Your task to perform on an android device: open app "Flipkart Online Shopping App" Image 0: 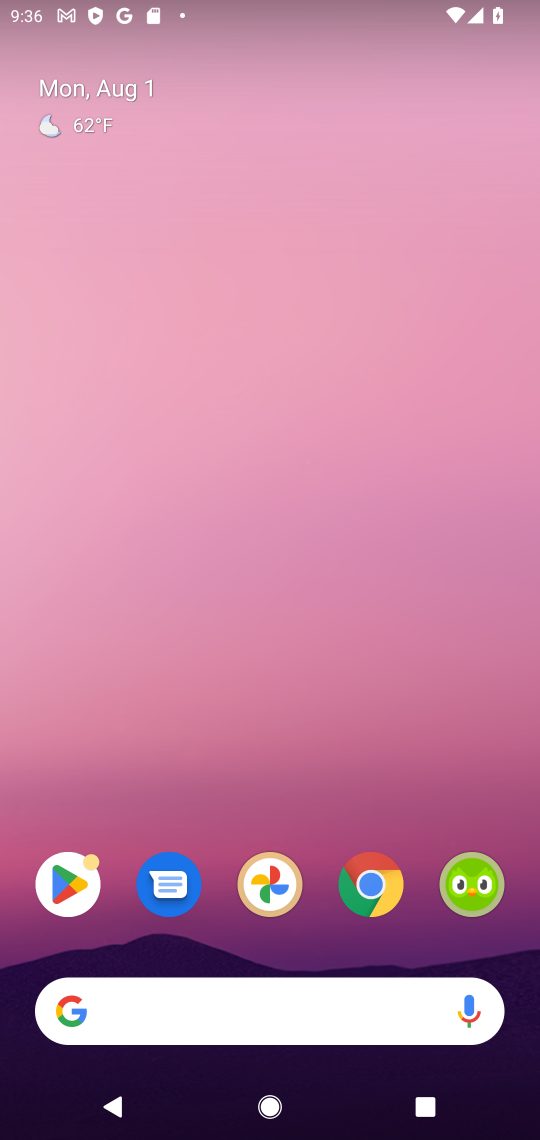
Step 0: click (292, 1000)
Your task to perform on an android device: open app "Flipkart Online Shopping App" Image 1: 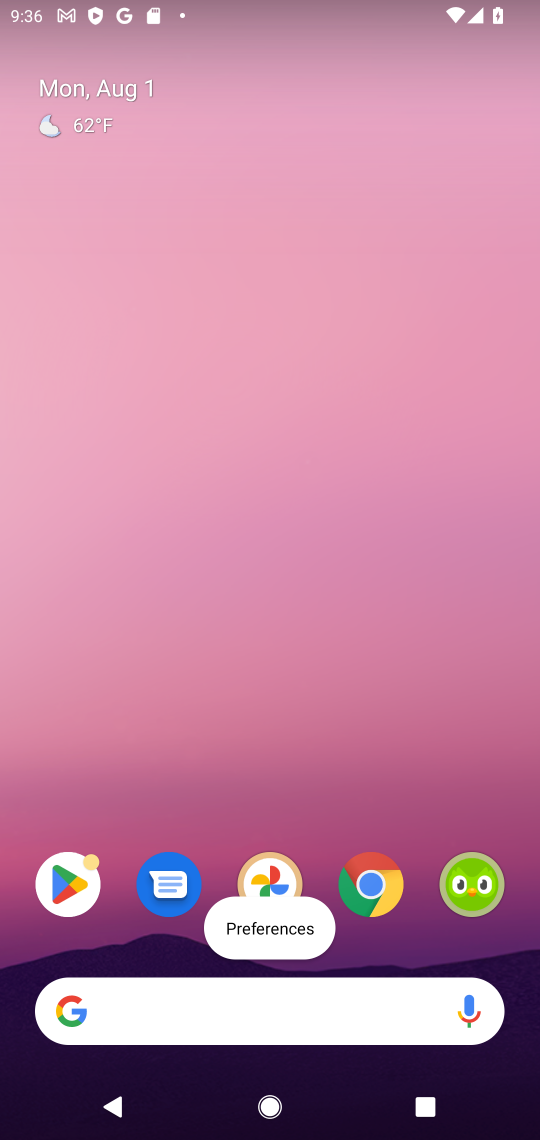
Step 1: click (82, 865)
Your task to perform on an android device: open app "Flipkart Online Shopping App" Image 2: 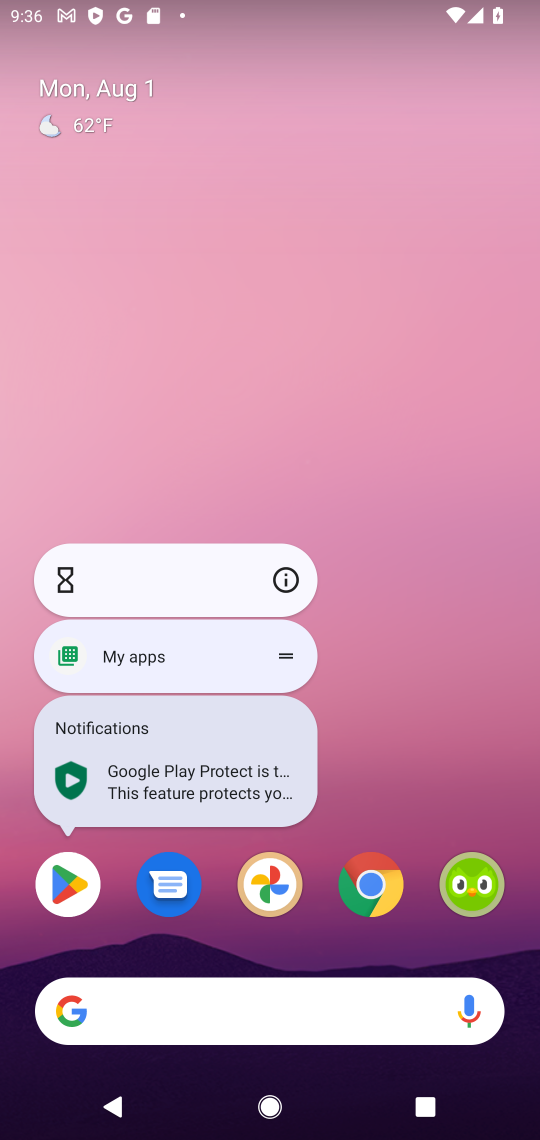
Step 2: click (82, 907)
Your task to perform on an android device: open app "Flipkart Online Shopping App" Image 3: 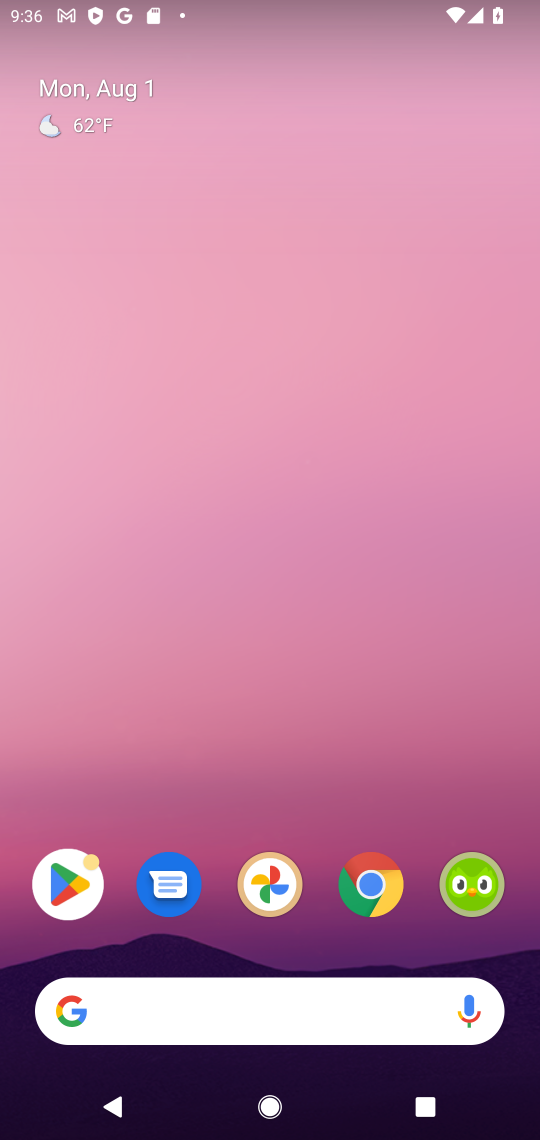
Step 3: click (57, 907)
Your task to perform on an android device: open app "Flipkart Online Shopping App" Image 4: 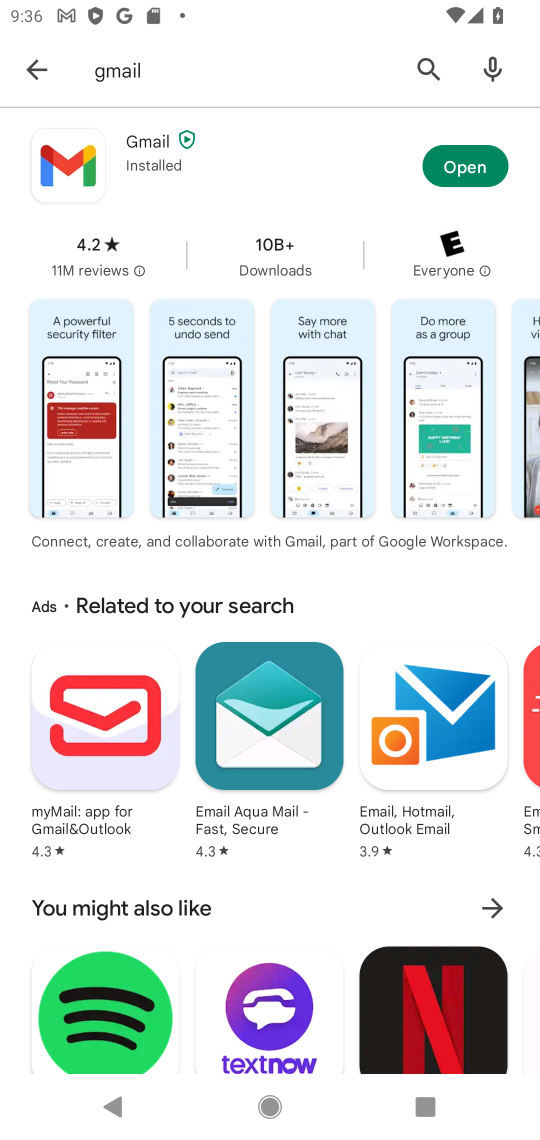
Step 4: click (429, 58)
Your task to perform on an android device: open app "Flipkart Online Shopping App" Image 5: 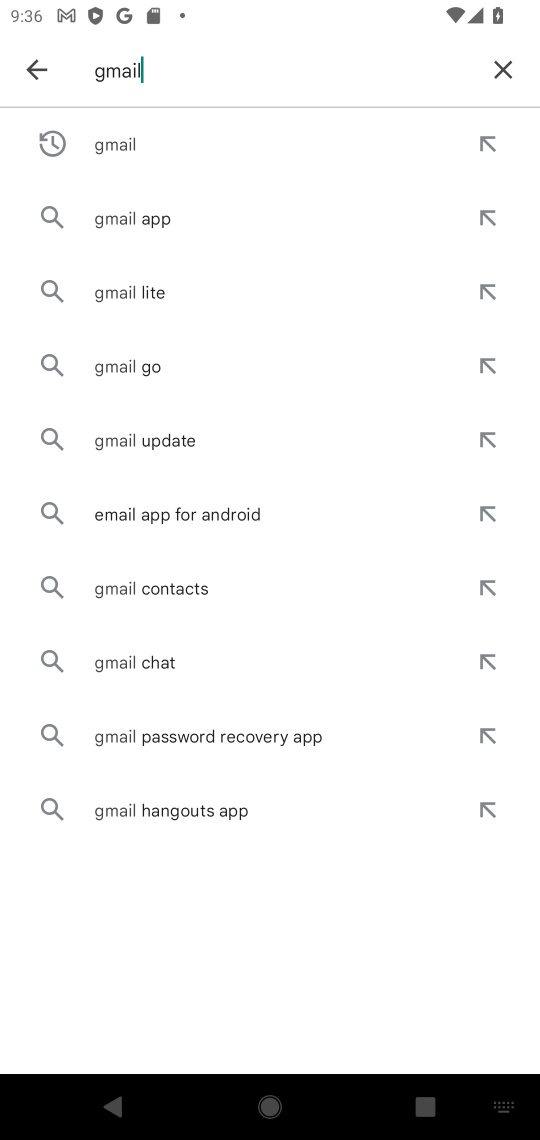
Step 5: click (508, 82)
Your task to perform on an android device: open app "Flipkart Online Shopping App" Image 6: 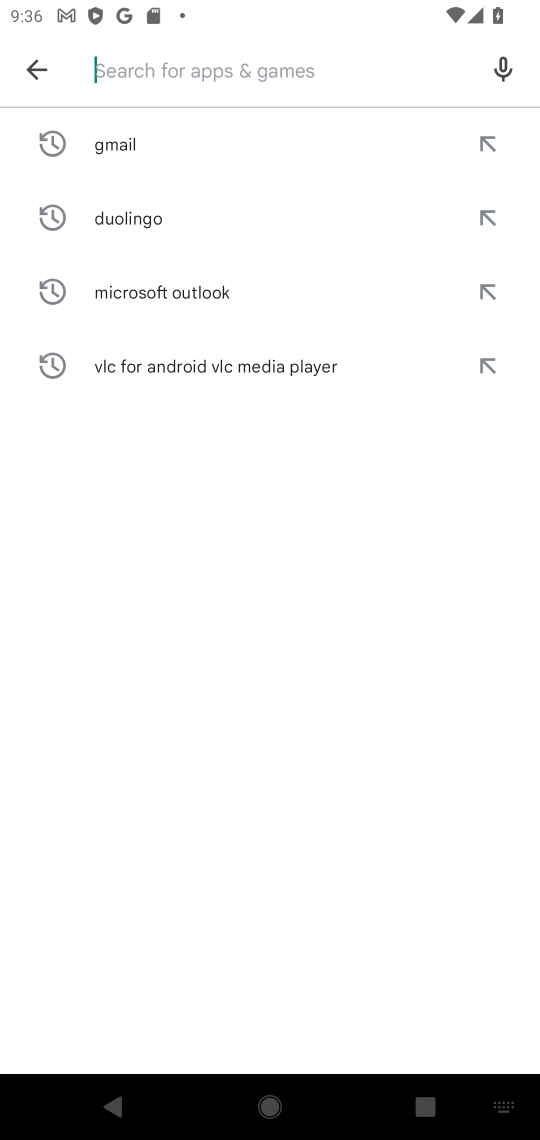
Step 6: type "Flipkart Online Shopping App""
Your task to perform on an android device: open app "Flipkart Online Shopping App" Image 7: 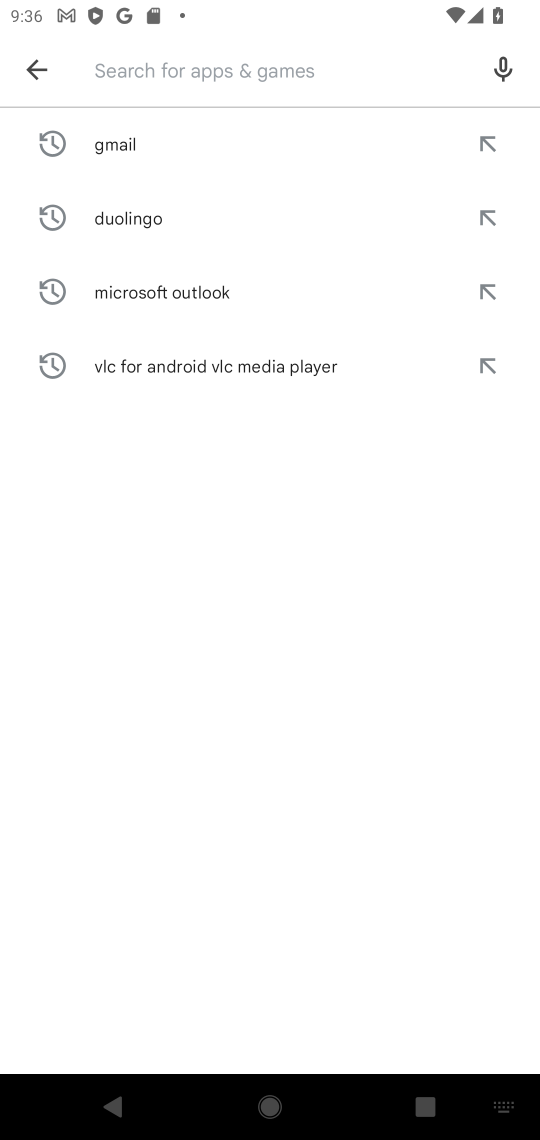
Step 7: type ""
Your task to perform on an android device: open app "Flipkart Online Shopping App" Image 8: 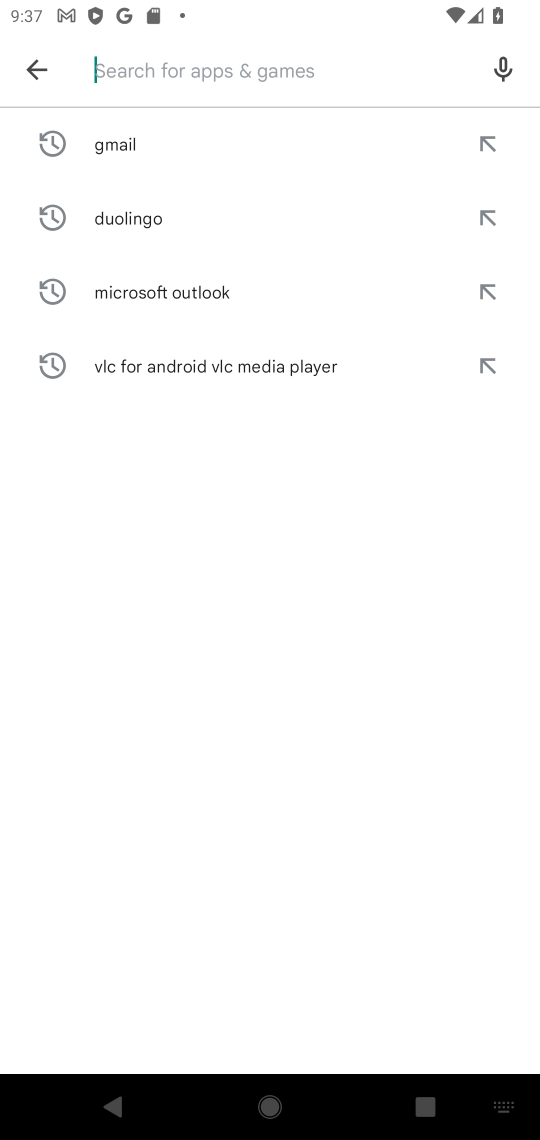
Step 8: type "Flipkart Online Shopping App"
Your task to perform on an android device: open app "Flipkart Online Shopping App" Image 9: 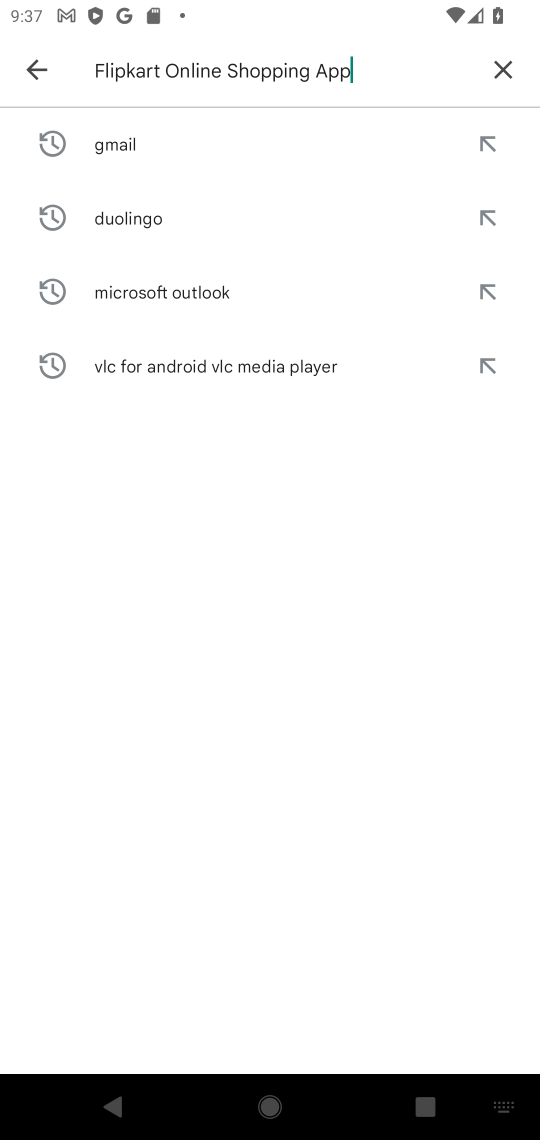
Step 9: type ""
Your task to perform on an android device: open app "Flipkart Online Shopping App" Image 10: 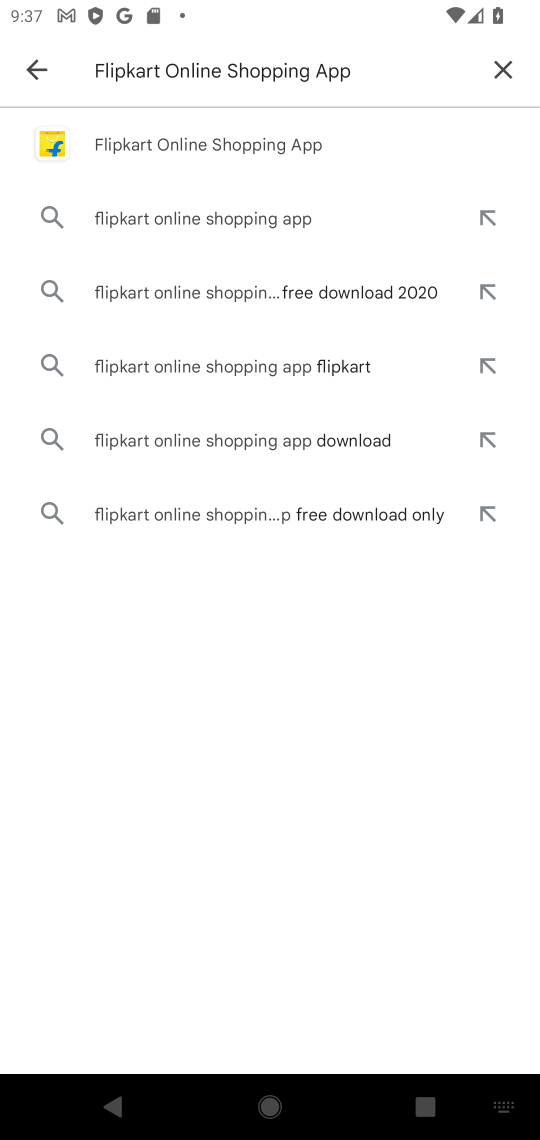
Step 10: click (136, 144)
Your task to perform on an android device: open app "Flipkart Online Shopping App" Image 11: 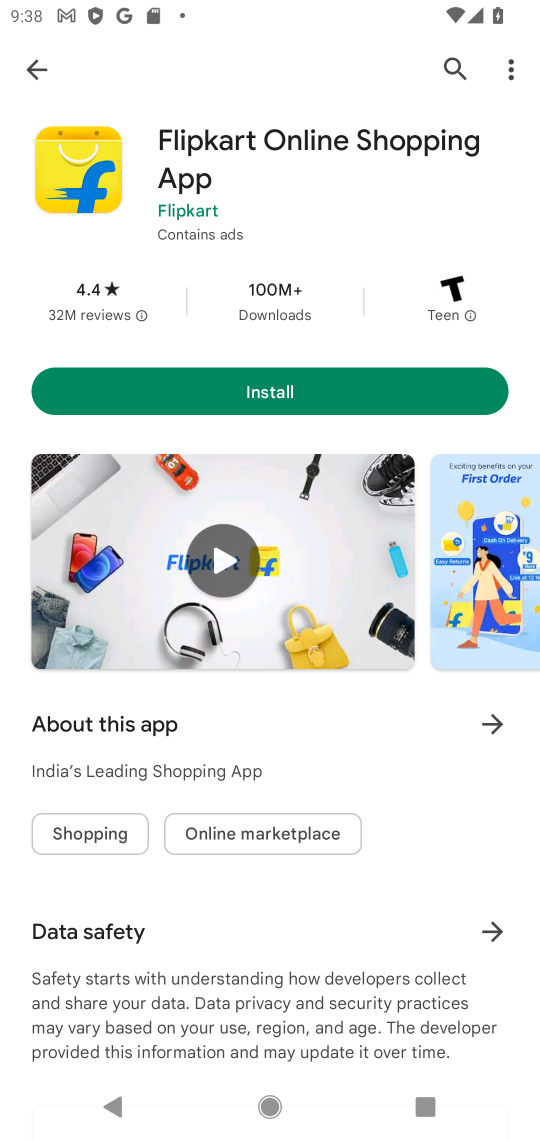
Step 11: task complete